Your task to perform on an android device: Go to Google Image 0: 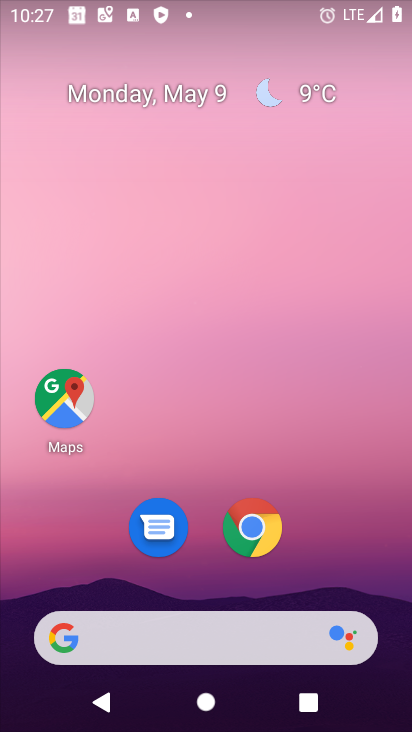
Step 0: click (249, 526)
Your task to perform on an android device: Go to Google Image 1: 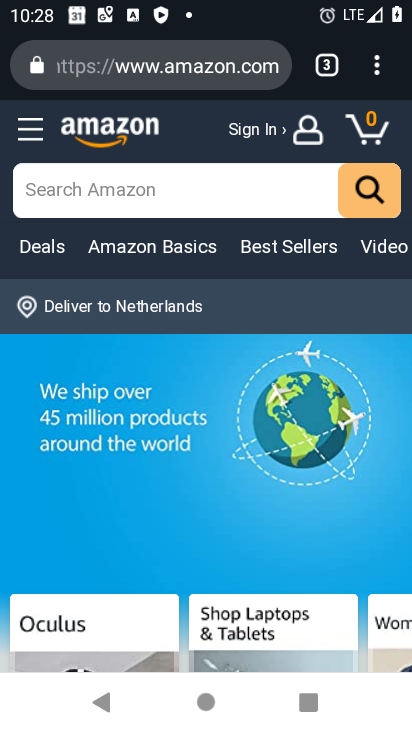
Step 1: task complete